Your task to perform on an android device: Show me productivity apps on the Play Store Image 0: 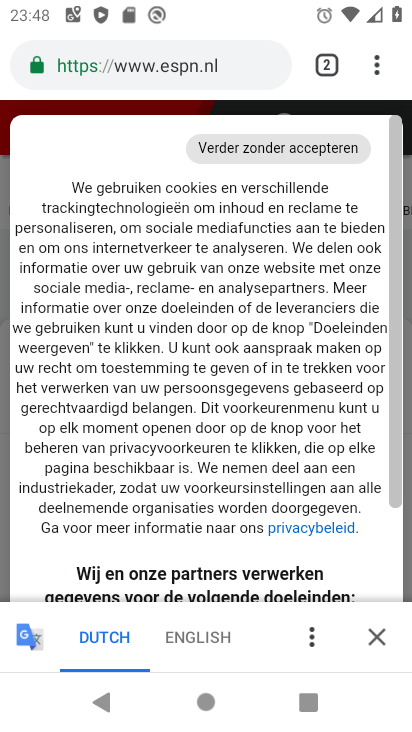
Step 0: press home button
Your task to perform on an android device: Show me productivity apps on the Play Store Image 1: 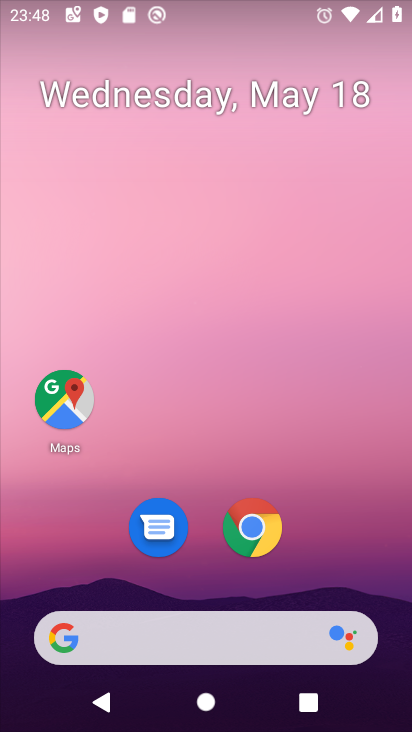
Step 1: drag from (318, 557) to (310, 162)
Your task to perform on an android device: Show me productivity apps on the Play Store Image 2: 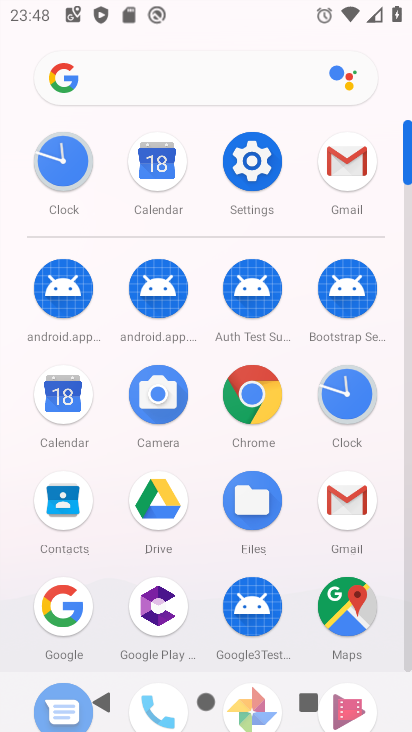
Step 2: click (405, 652)
Your task to perform on an android device: Show me productivity apps on the Play Store Image 3: 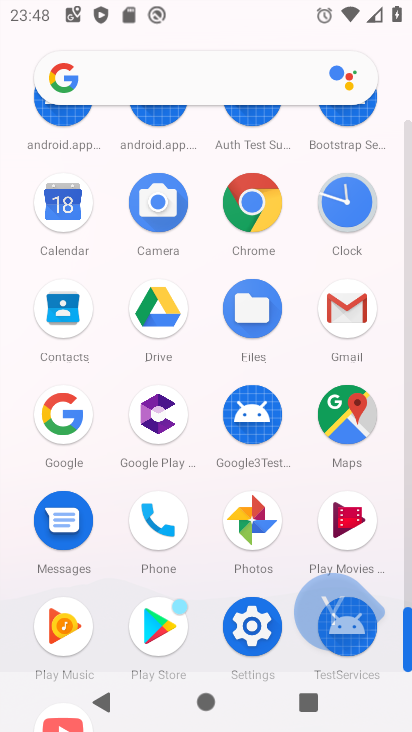
Step 3: click (405, 652)
Your task to perform on an android device: Show me productivity apps on the Play Store Image 4: 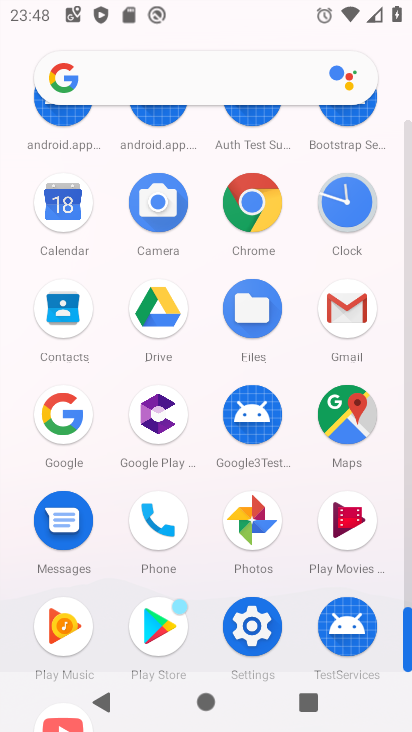
Step 4: click (179, 643)
Your task to perform on an android device: Show me productivity apps on the Play Store Image 5: 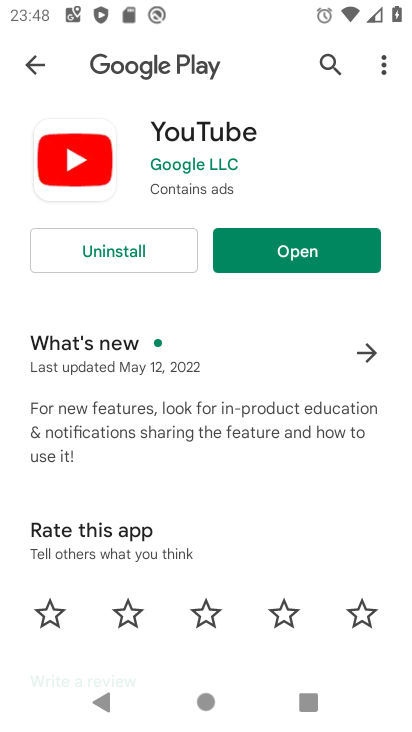
Step 5: click (295, 244)
Your task to perform on an android device: Show me productivity apps on the Play Store Image 6: 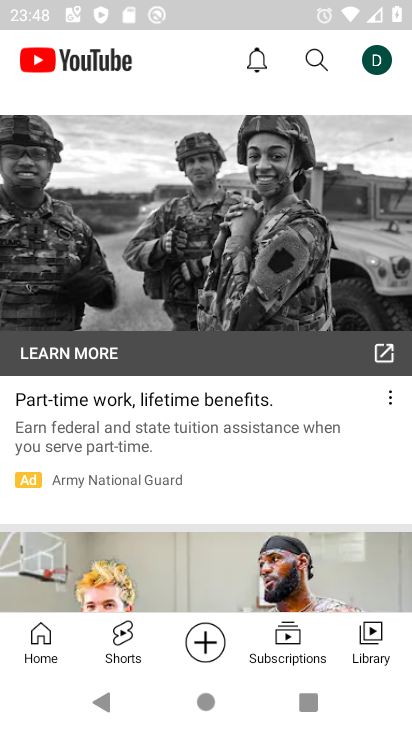
Step 6: click (83, 711)
Your task to perform on an android device: Show me productivity apps on the Play Store Image 7: 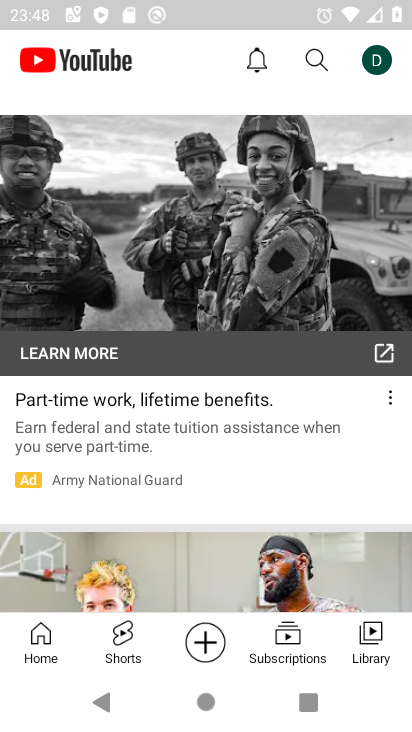
Step 7: click (83, 711)
Your task to perform on an android device: Show me productivity apps on the Play Store Image 8: 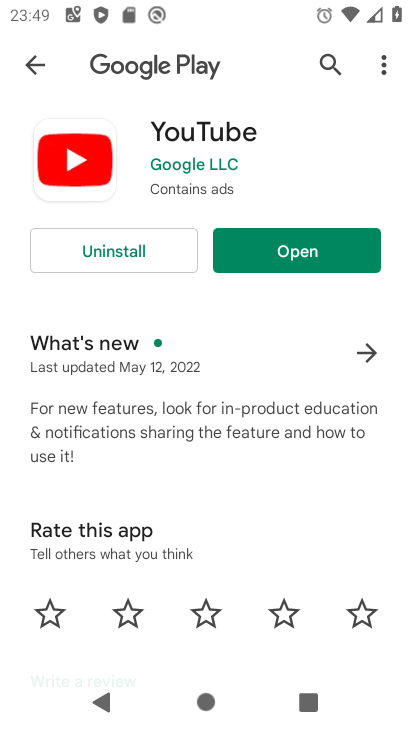
Step 8: click (83, 711)
Your task to perform on an android device: Show me productivity apps on the Play Store Image 9: 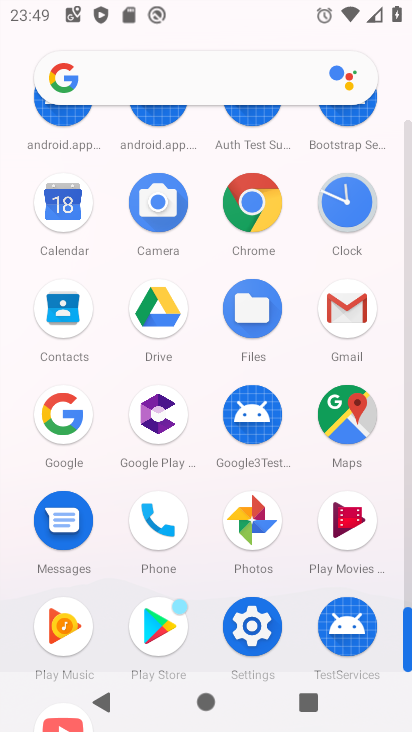
Step 9: click (162, 629)
Your task to perform on an android device: Show me productivity apps on the Play Store Image 10: 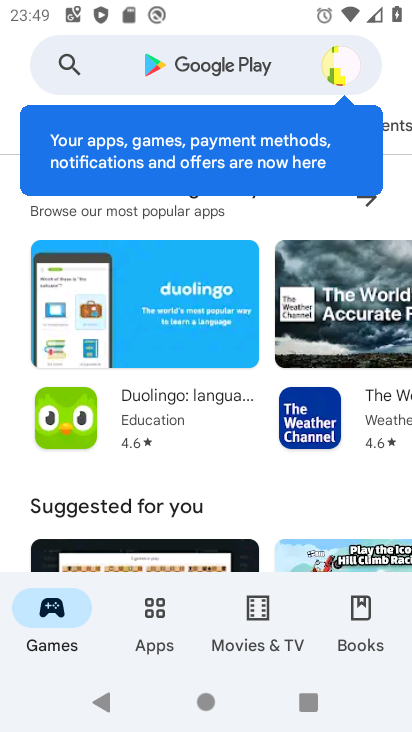
Step 10: click (182, 54)
Your task to perform on an android device: Show me productivity apps on the Play Store Image 11: 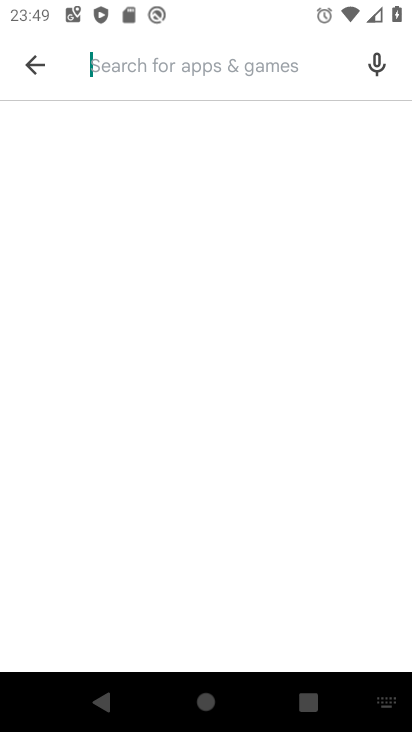
Step 11: click (31, 73)
Your task to perform on an android device: Show me productivity apps on the Play Store Image 12: 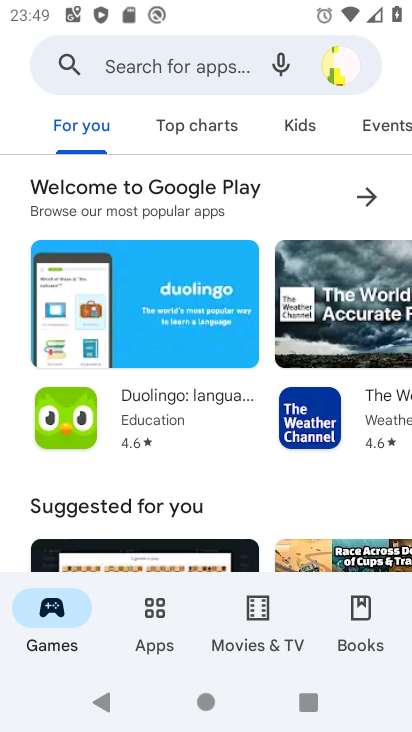
Step 12: click (142, 641)
Your task to perform on an android device: Show me productivity apps on the Play Store Image 13: 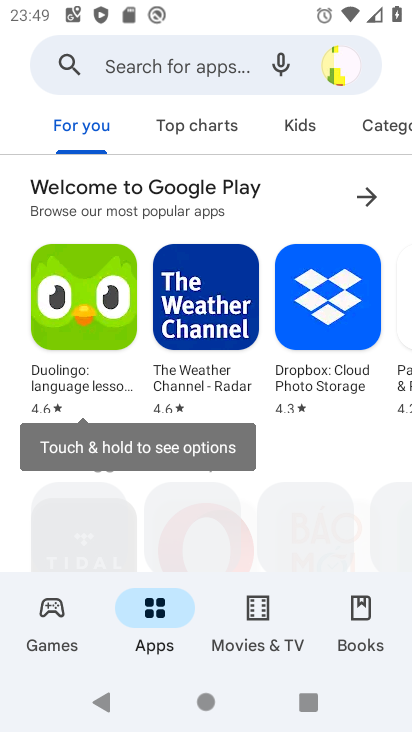
Step 13: click (175, 126)
Your task to perform on an android device: Show me productivity apps on the Play Store Image 14: 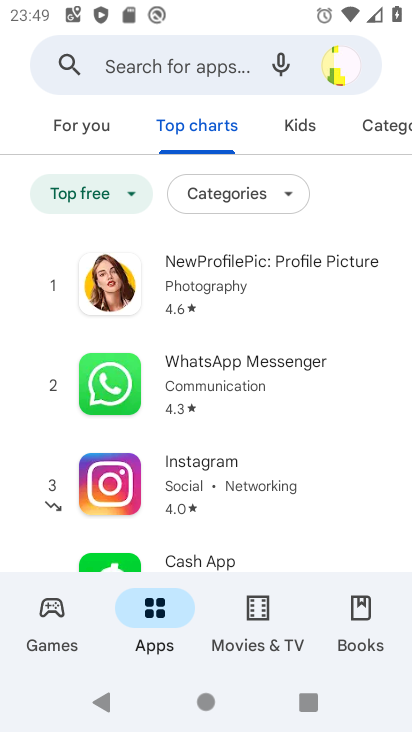
Step 14: click (239, 183)
Your task to perform on an android device: Show me productivity apps on the Play Store Image 15: 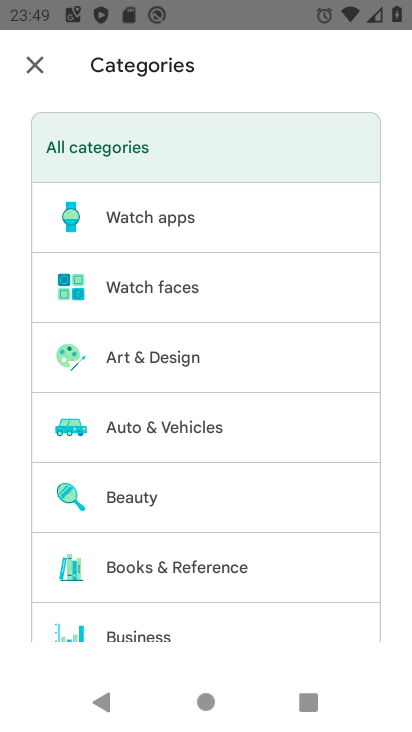
Step 15: drag from (224, 553) to (302, 116)
Your task to perform on an android device: Show me productivity apps on the Play Store Image 16: 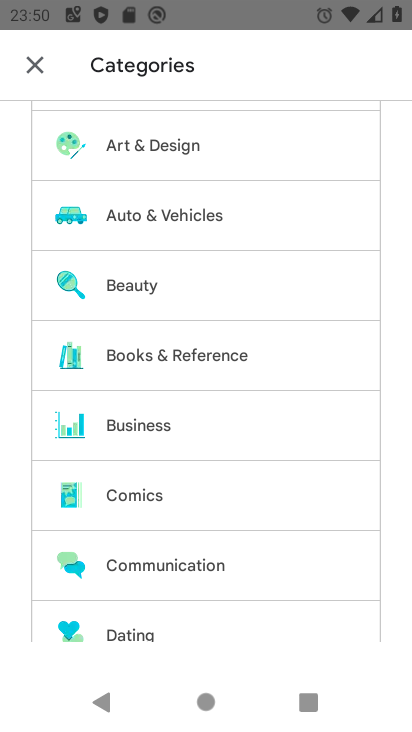
Step 16: drag from (204, 522) to (213, 142)
Your task to perform on an android device: Show me productivity apps on the Play Store Image 17: 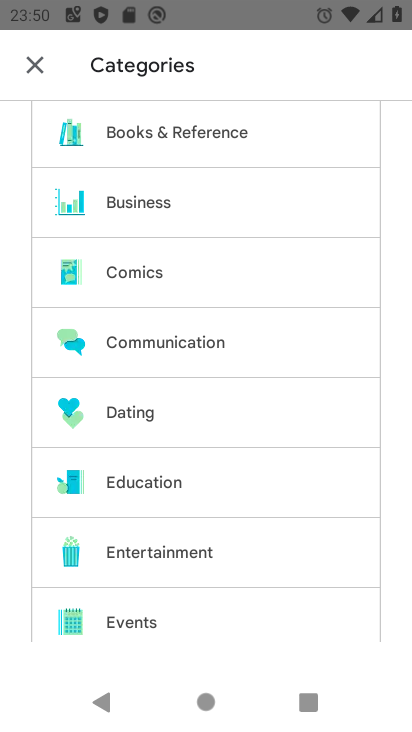
Step 17: drag from (161, 572) to (34, 111)
Your task to perform on an android device: Show me productivity apps on the Play Store Image 18: 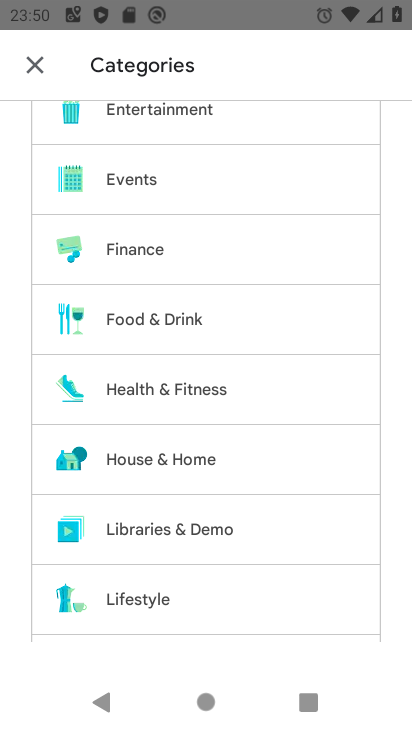
Step 18: drag from (140, 531) to (149, 182)
Your task to perform on an android device: Show me productivity apps on the Play Store Image 19: 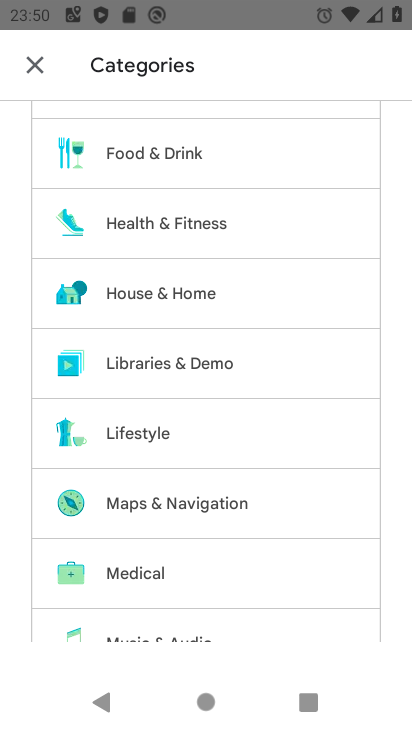
Step 19: drag from (170, 585) to (251, 287)
Your task to perform on an android device: Show me productivity apps on the Play Store Image 20: 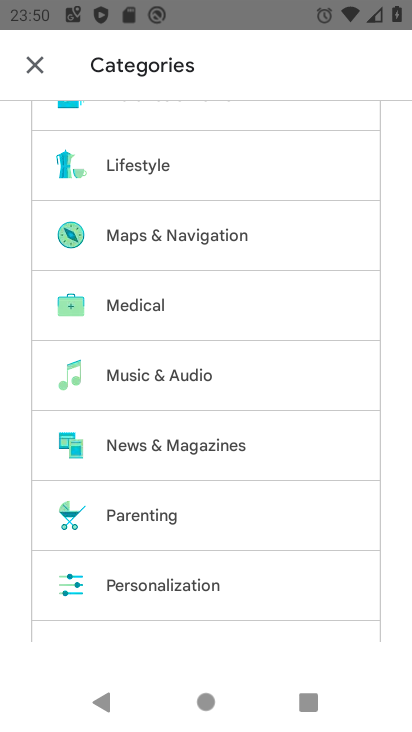
Step 20: drag from (220, 573) to (242, 188)
Your task to perform on an android device: Show me productivity apps on the Play Store Image 21: 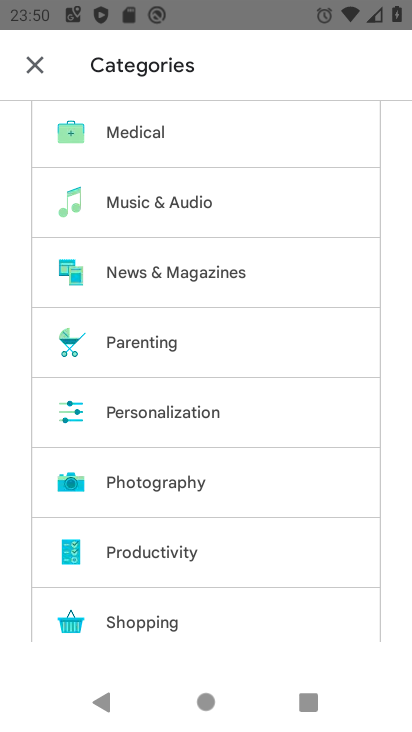
Step 21: click (229, 538)
Your task to perform on an android device: Show me productivity apps on the Play Store Image 22: 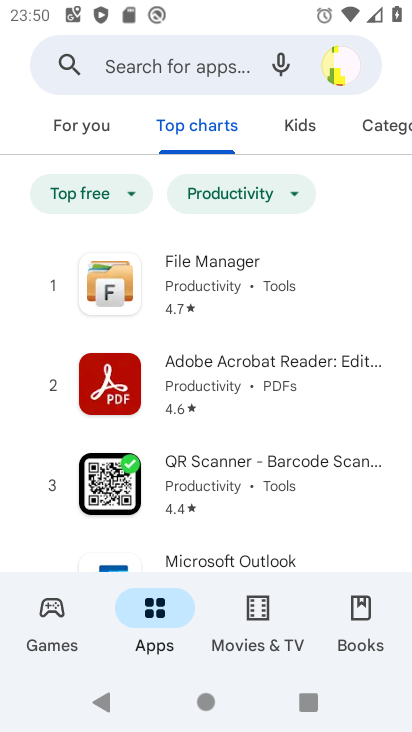
Step 22: task complete